Your task to perform on an android device: remove spam from my inbox in the gmail app Image 0: 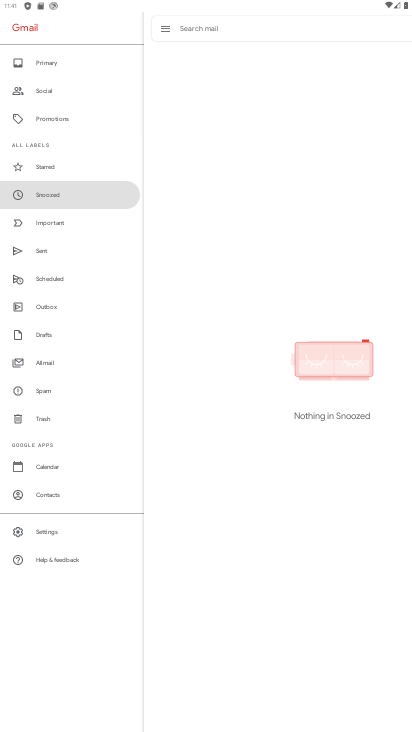
Step 0: press home button
Your task to perform on an android device: remove spam from my inbox in the gmail app Image 1: 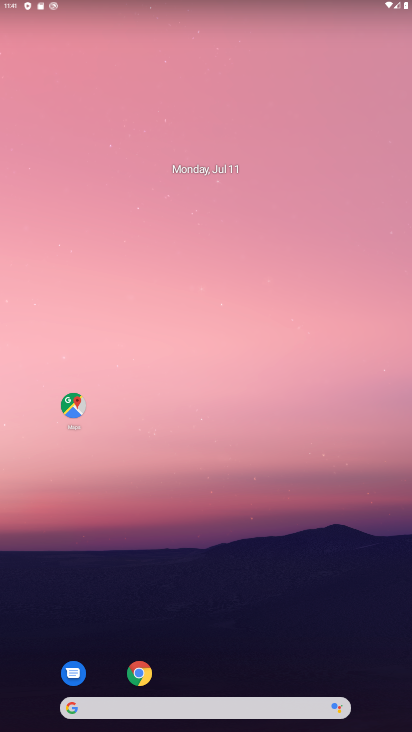
Step 1: drag from (203, 674) to (227, 4)
Your task to perform on an android device: remove spam from my inbox in the gmail app Image 2: 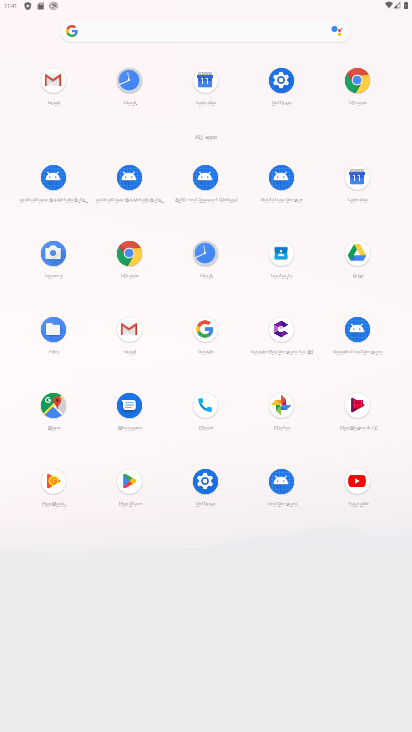
Step 2: click (50, 72)
Your task to perform on an android device: remove spam from my inbox in the gmail app Image 3: 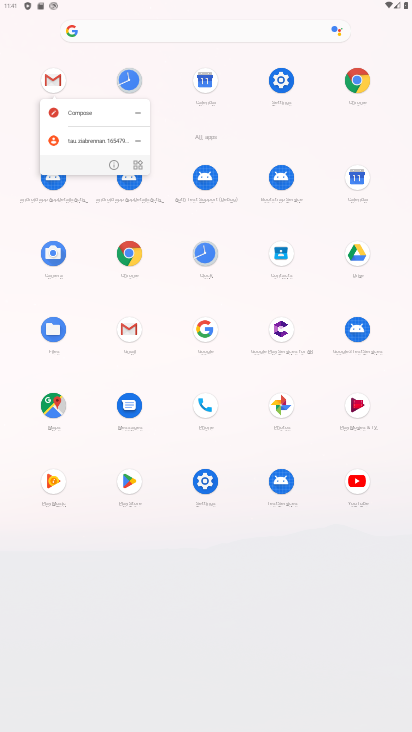
Step 3: click (51, 76)
Your task to perform on an android device: remove spam from my inbox in the gmail app Image 4: 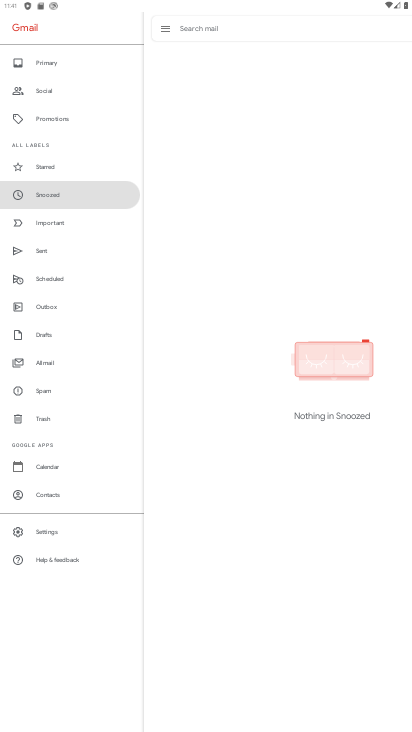
Step 4: click (51, 387)
Your task to perform on an android device: remove spam from my inbox in the gmail app Image 5: 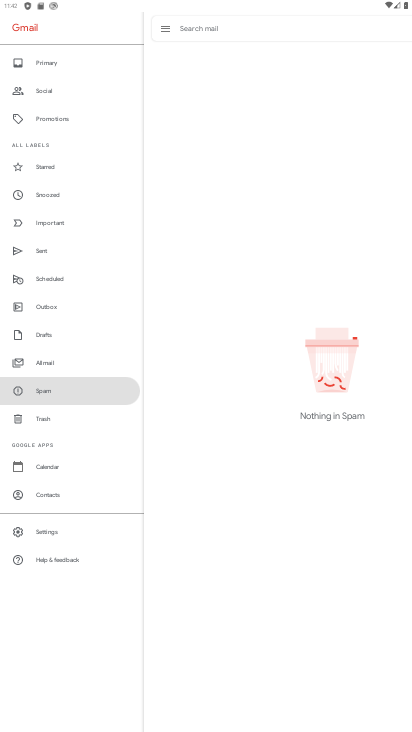
Step 5: task complete